Your task to perform on an android device: open app "Roku - Official Remote Control" (install if not already installed) and go to login screen Image 0: 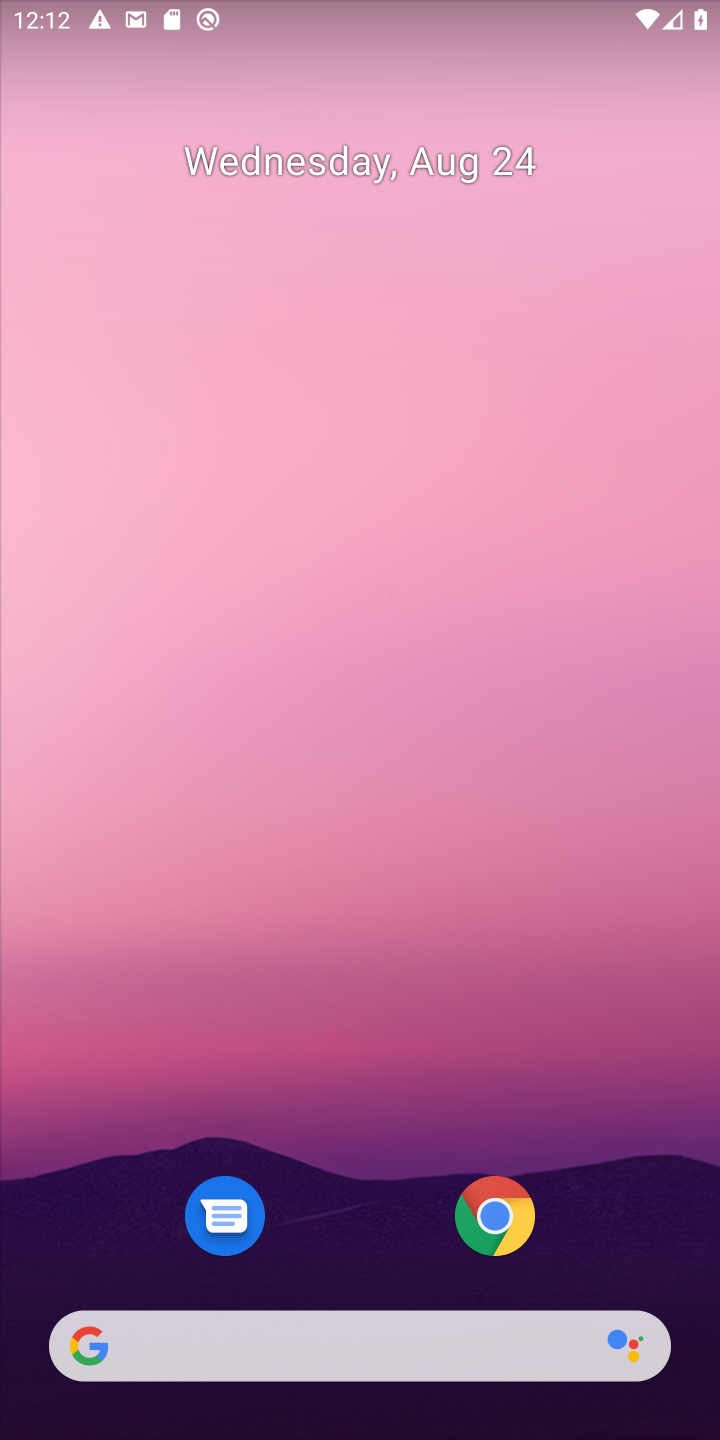
Step 0: drag from (260, 1342) to (546, 144)
Your task to perform on an android device: open app "Roku - Official Remote Control" (install if not already installed) and go to login screen Image 1: 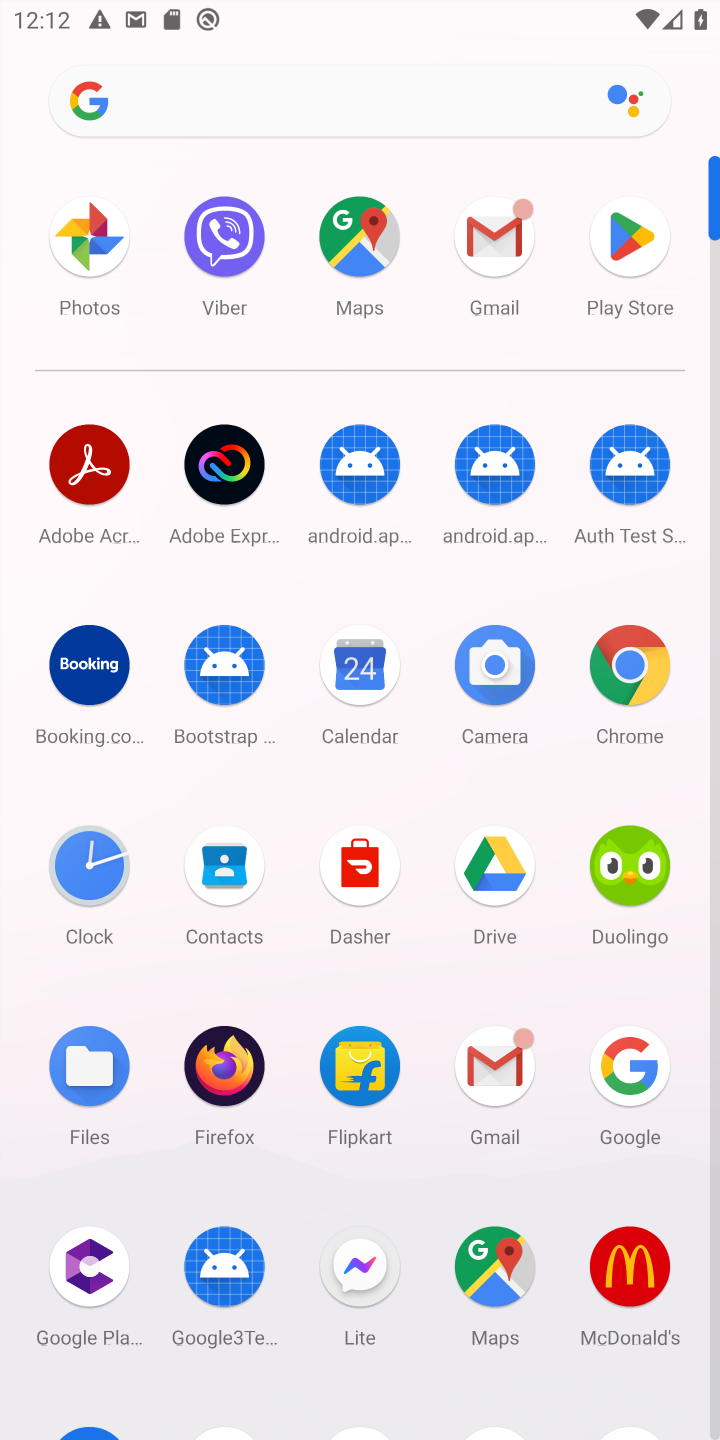
Step 1: click (626, 236)
Your task to perform on an android device: open app "Roku - Official Remote Control" (install if not already installed) and go to login screen Image 2: 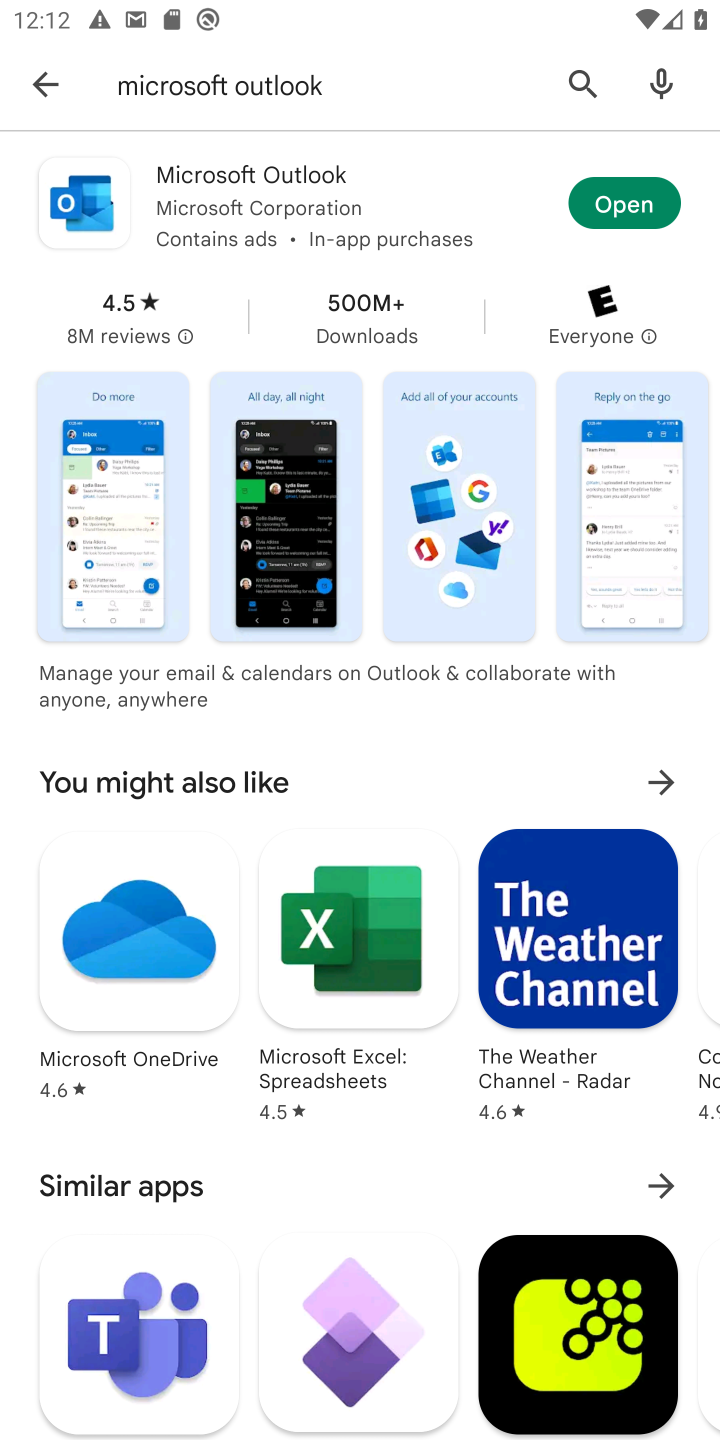
Step 2: press back button
Your task to perform on an android device: open app "Roku - Official Remote Control" (install if not already installed) and go to login screen Image 3: 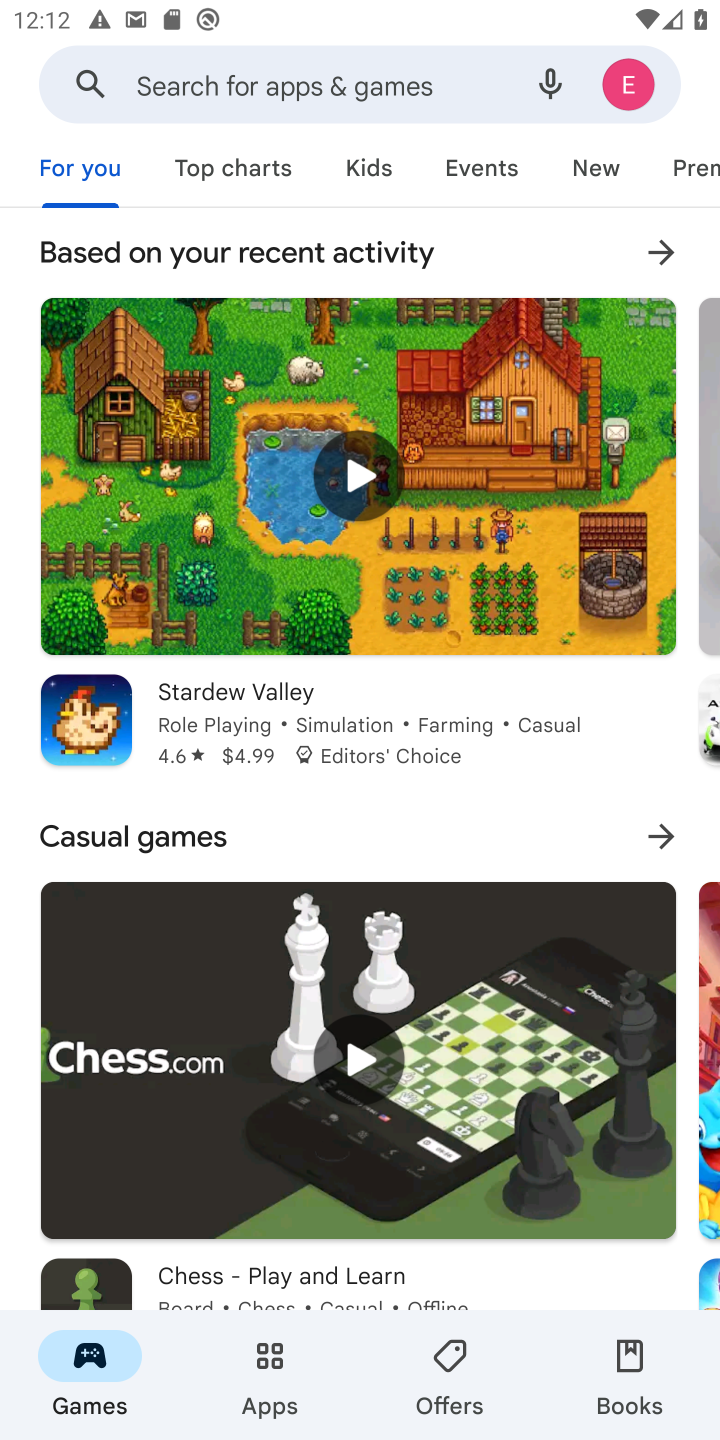
Step 3: click (245, 65)
Your task to perform on an android device: open app "Roku - Official Remote Control" (install if not already installed) and go to login screen Image 4: 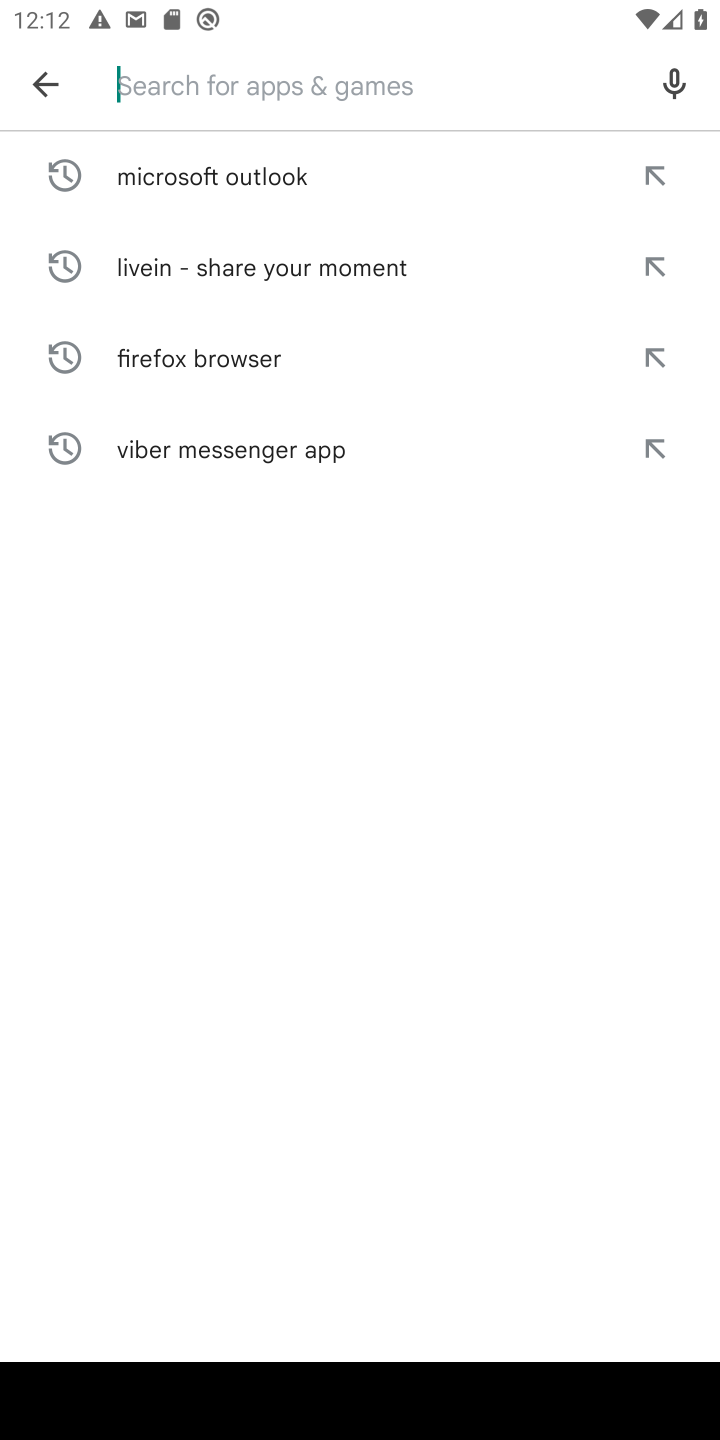
Step 4: click (211, 90)
Your task to perform on an android device: open app "Roku - Official Remote Control" (install if not already installed) and go to login screen Image 5: 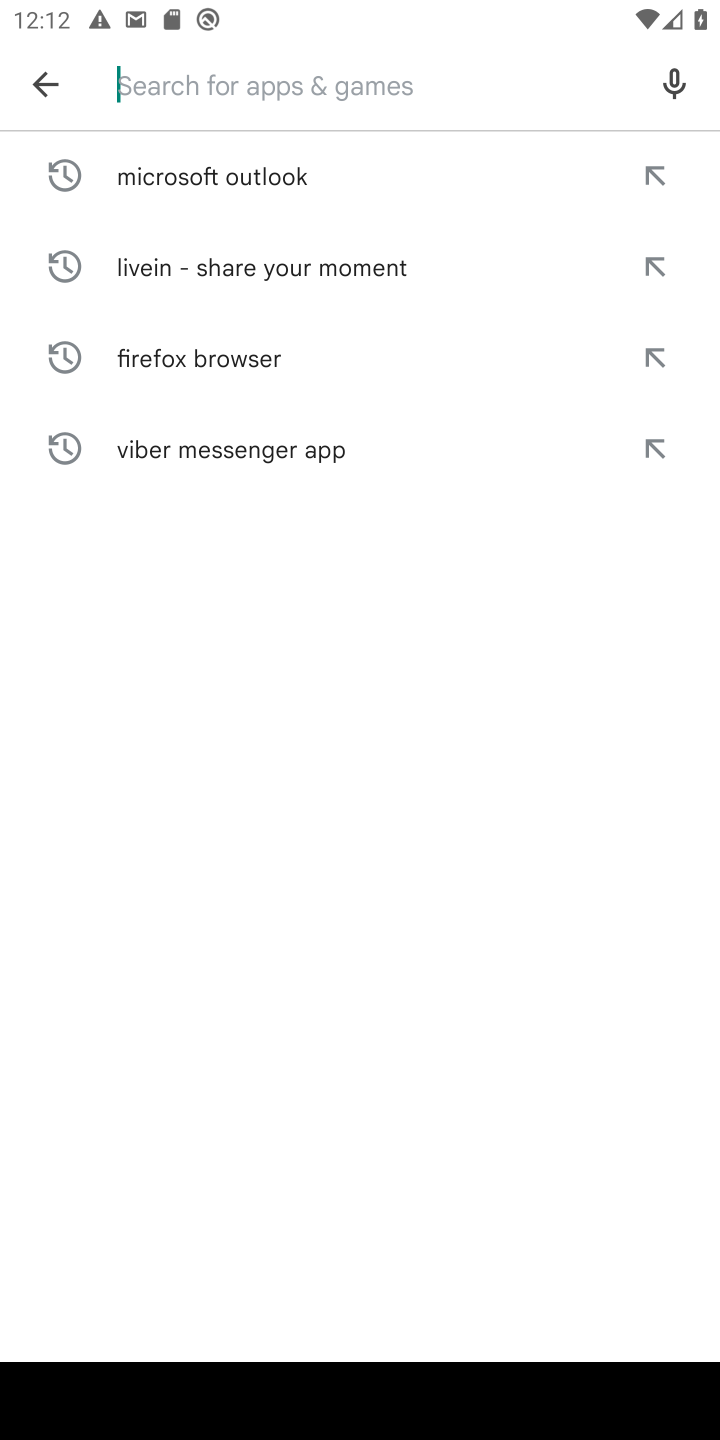
Step 5: type "Roku - Official Remote Control"
Your task to perform on an android device: open app "Roku - Official Remote Control" (install if not already installed) and go to login screen Image 6: 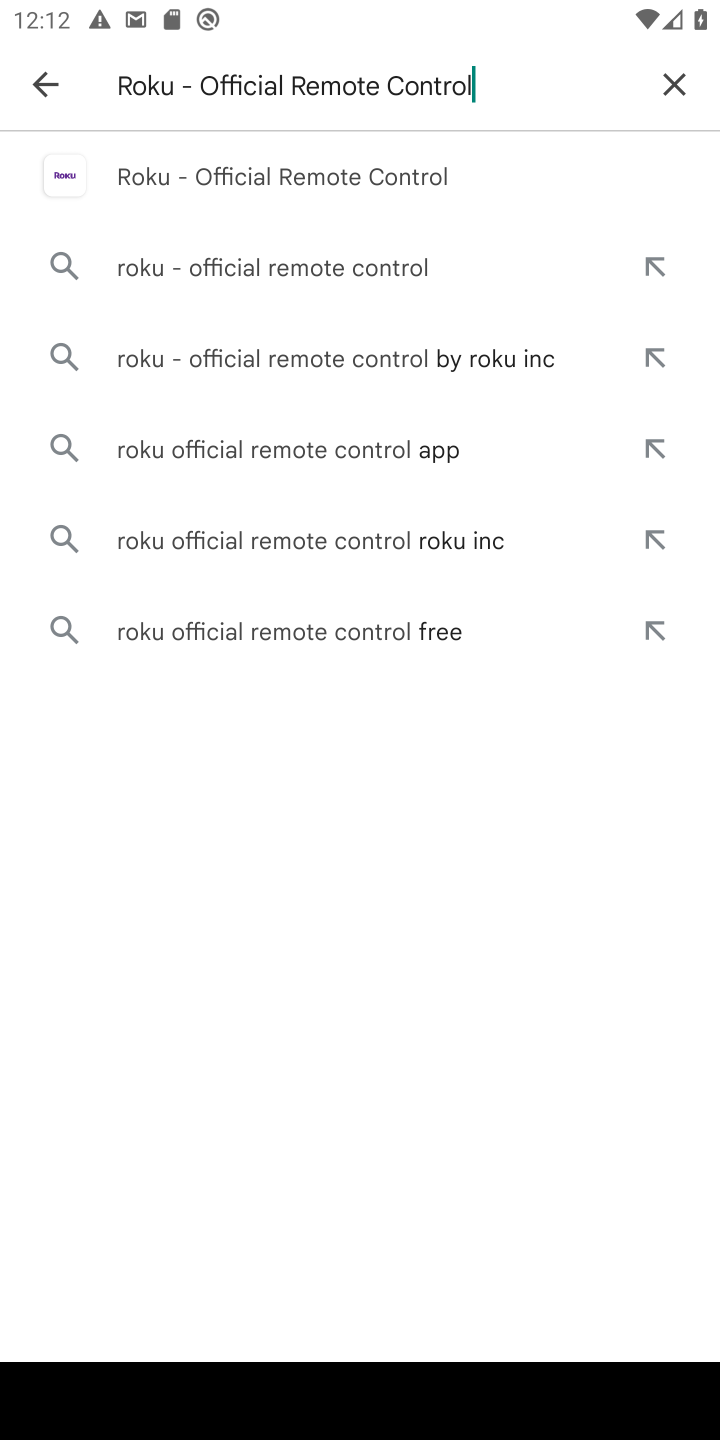
Step 6: click (186, 175)
Your task to perform on an android device: open app "Roku - Official Remote Control" (install if not already installed) and go to login screen Image 7: 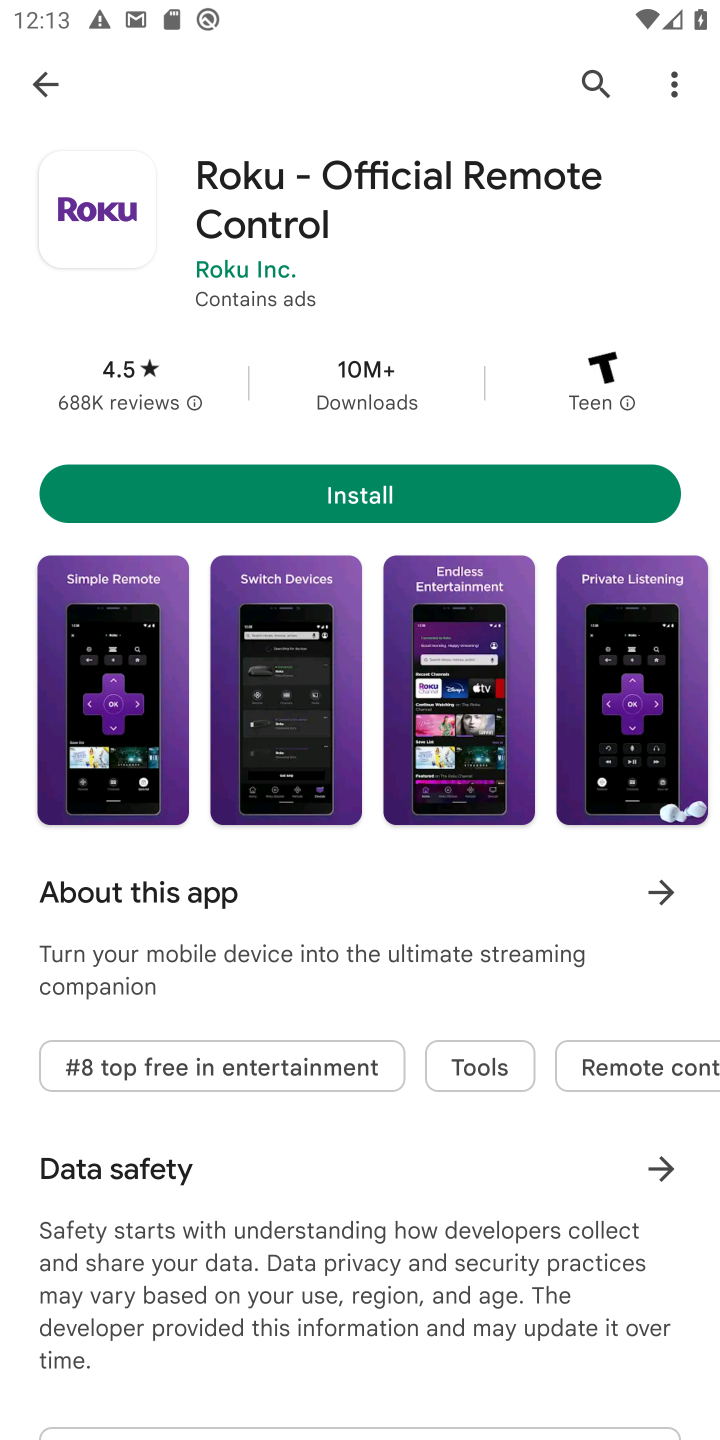
Step 7: click (391, 507)
Your task to perform on an android device: open app "Roku - Official Remote Control" (install if not already installed) and go to login screen Image 8: 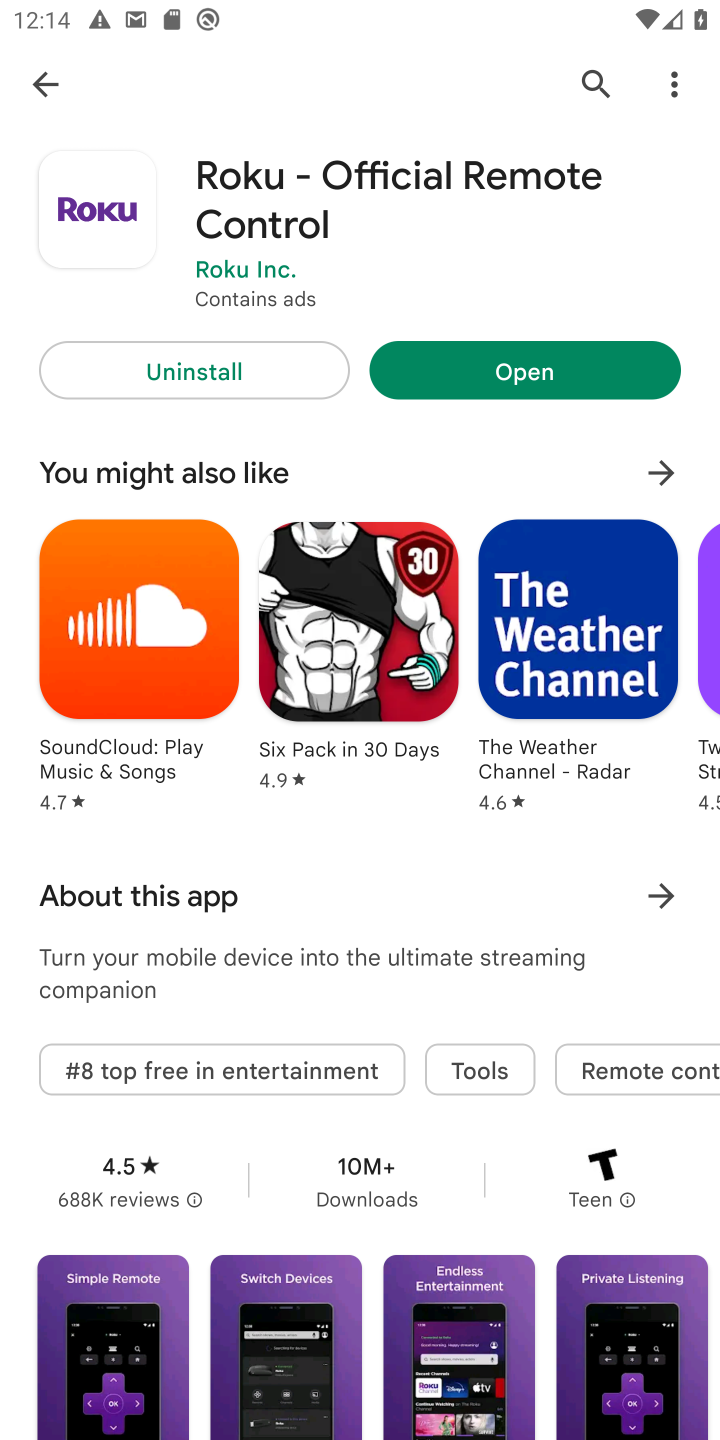
Step 8: click (527, 368)
Your task to perform on an android device: open app "Roku - Official Remote Control" (install if not already installed) and go to login screen Image 9: 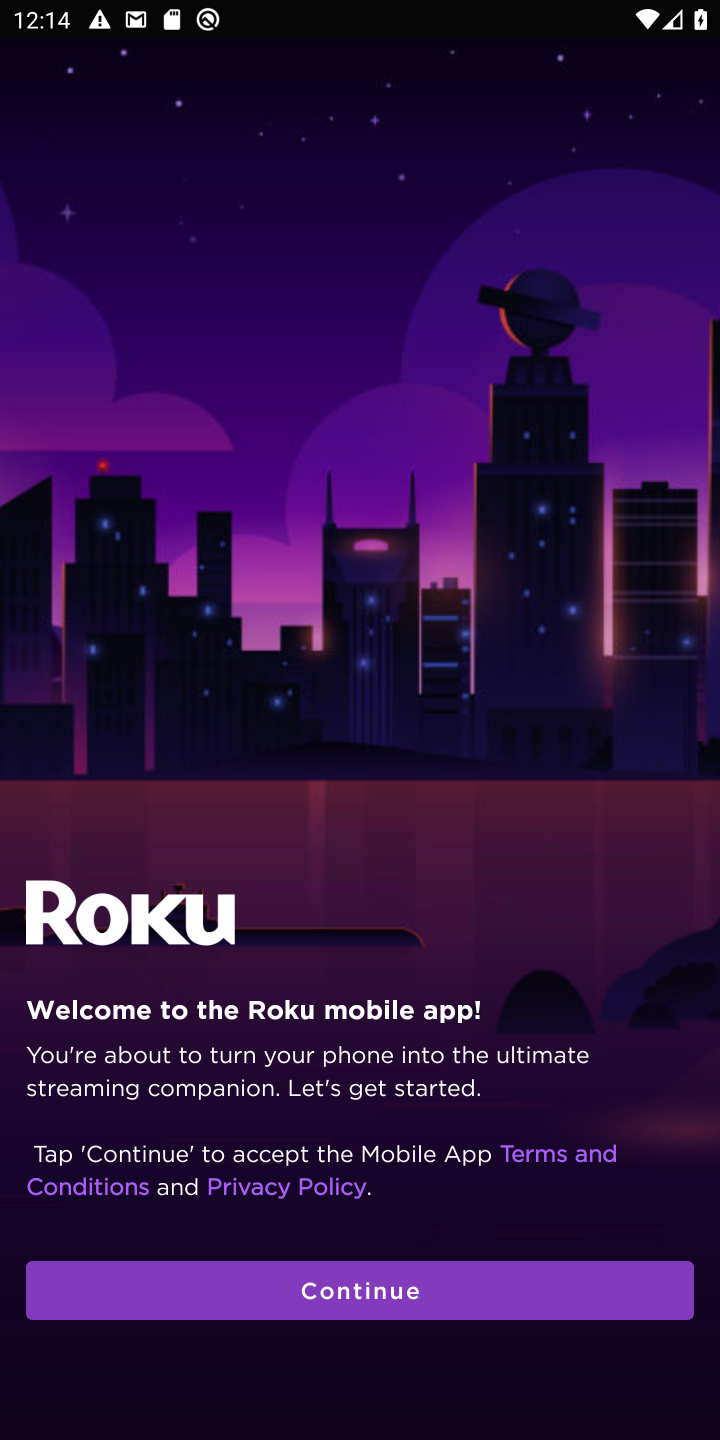
Step 9: click (377, 1301)
Your task to perform on an android device: open app "Roku - Official Remote Control" (install if not already installed) and go to login screen Image 10: 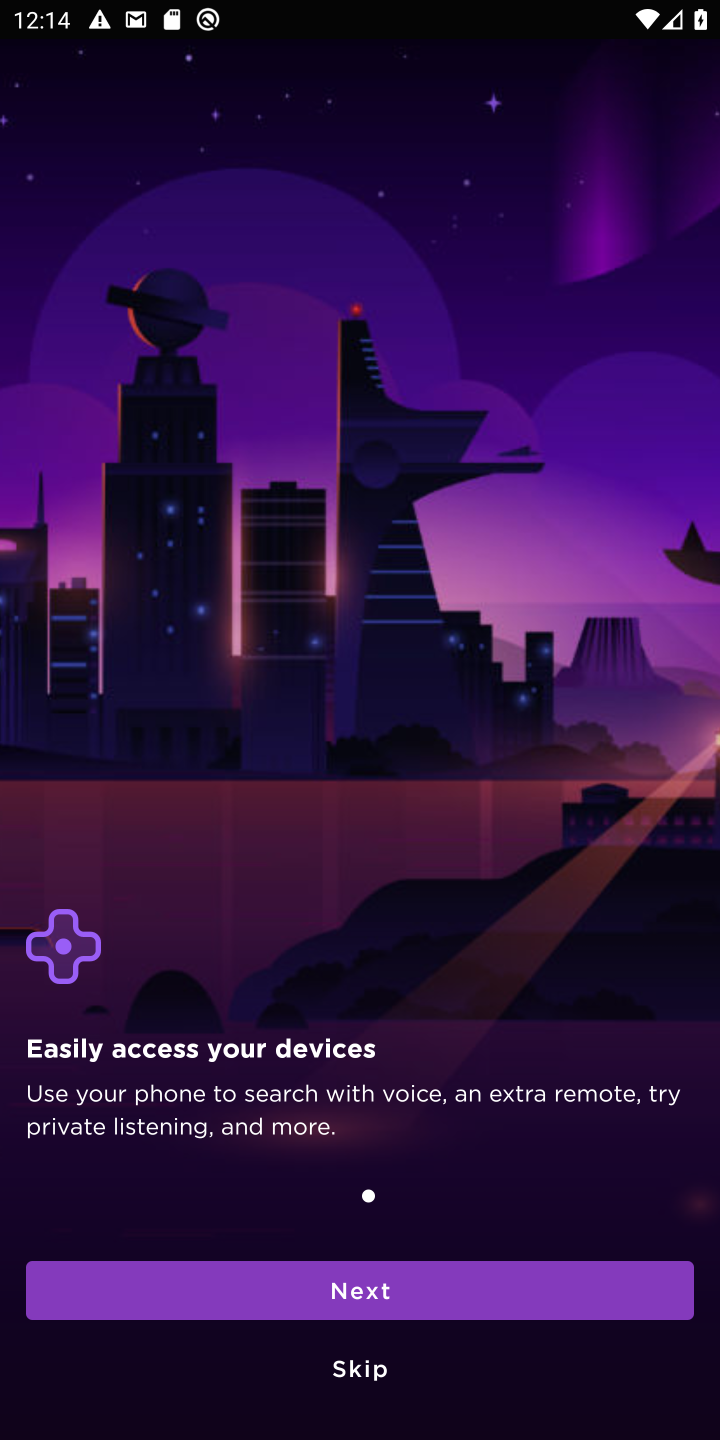
Step 10: click (395, 1300)
Your task to perform on an android device: open app "Roku - Official Remote Control" (install if not already installed) and go to login screen Image 11: 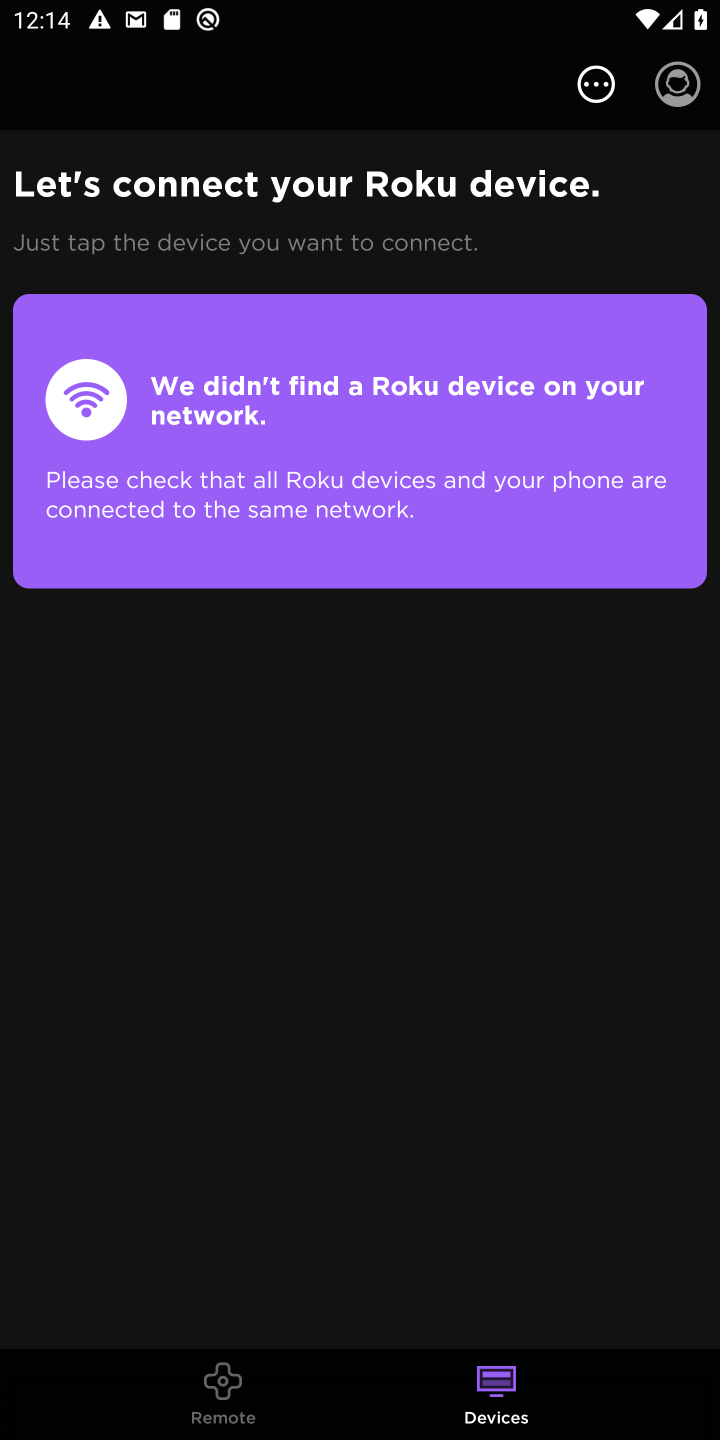
Step 11: click (676, 95)
Your task to perform on an android device: open app "Roku - Official Remote Control" (install if not already installed) and go to login screen Image 12: 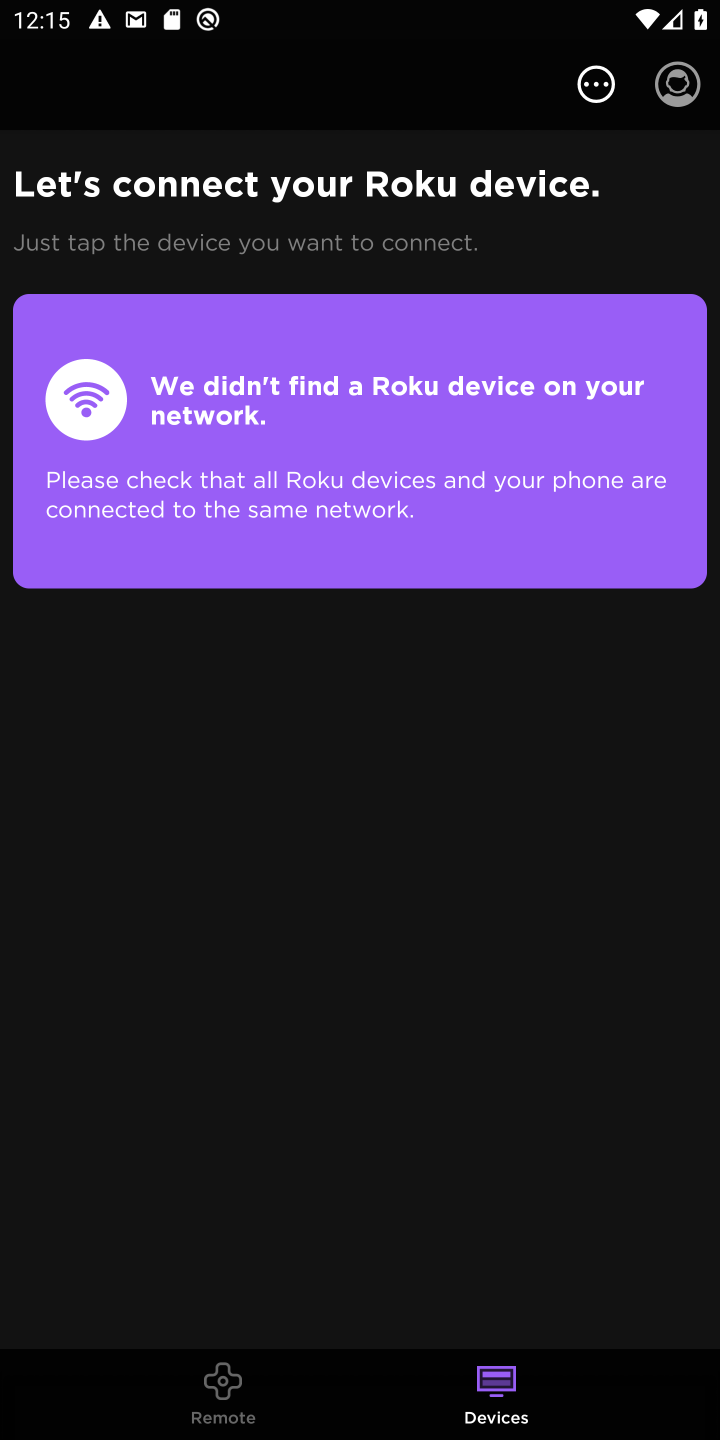
Step 12: click (677, 76)
Your task to perform on an android device: open app "Roku - Official Remote Control" (install if not already installed) and go to login screen Image 13: 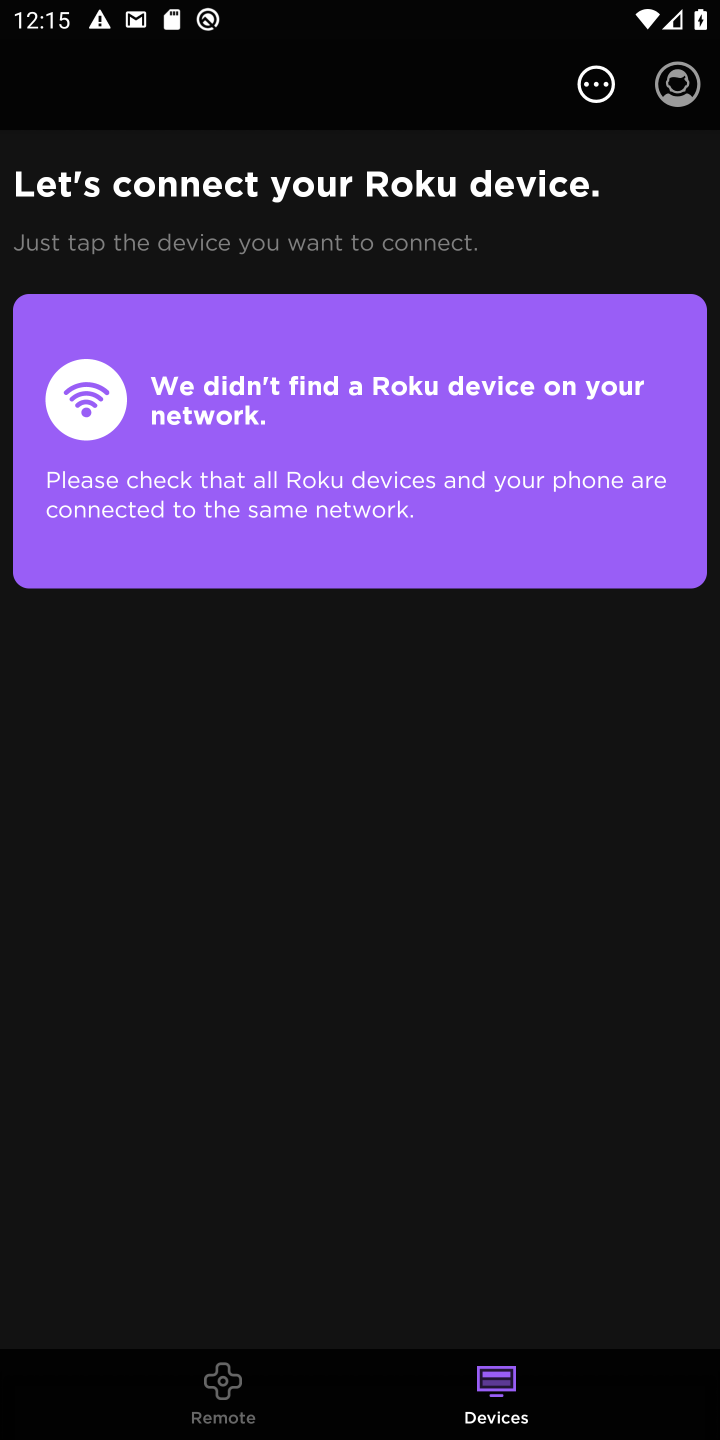
Step 13: click (677, 76)
Your task to perform on an android device: open app "Roku - Official Remote Control" (install if not already installed) and go to login screen Image 14: 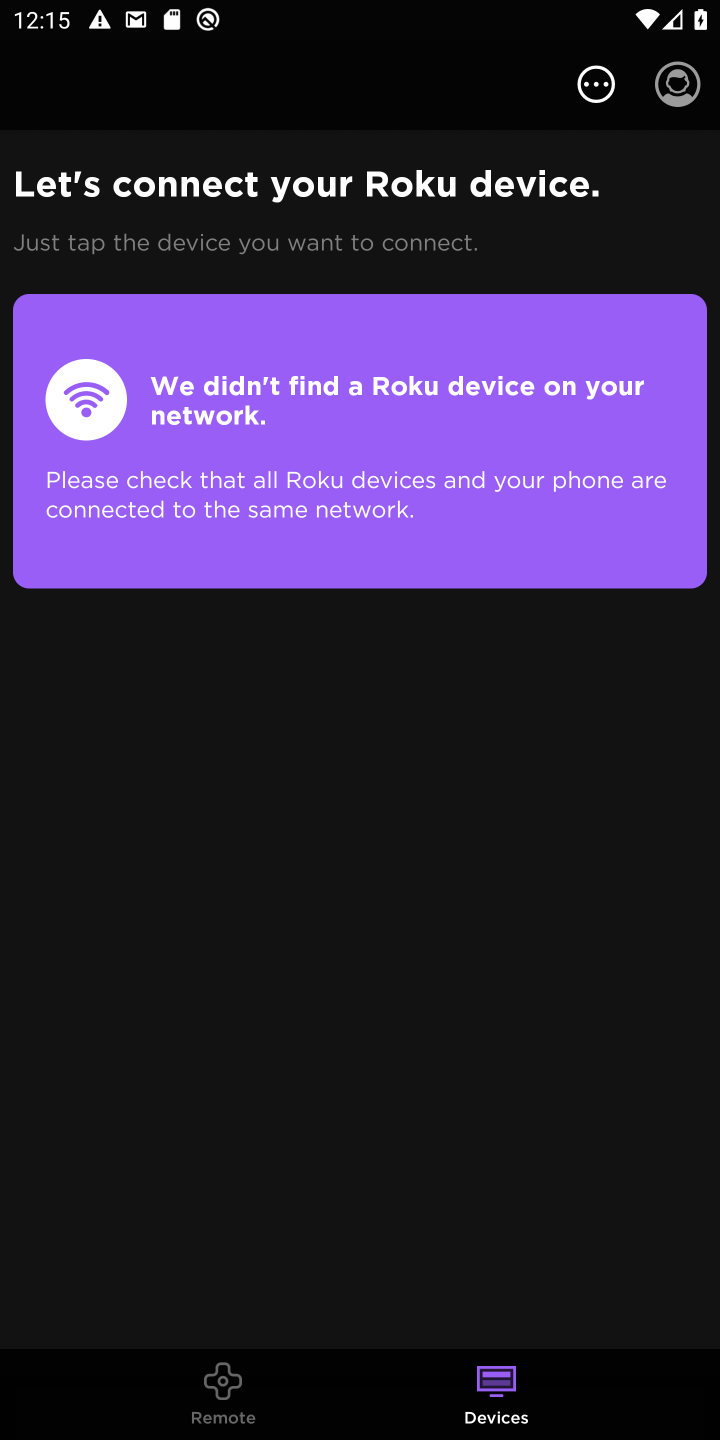
Step 14: click (664, 85)
Your task to perform on an android device: open app "Roku - Official Remote Control" (install if not already installed) and go to login screen Image 15: 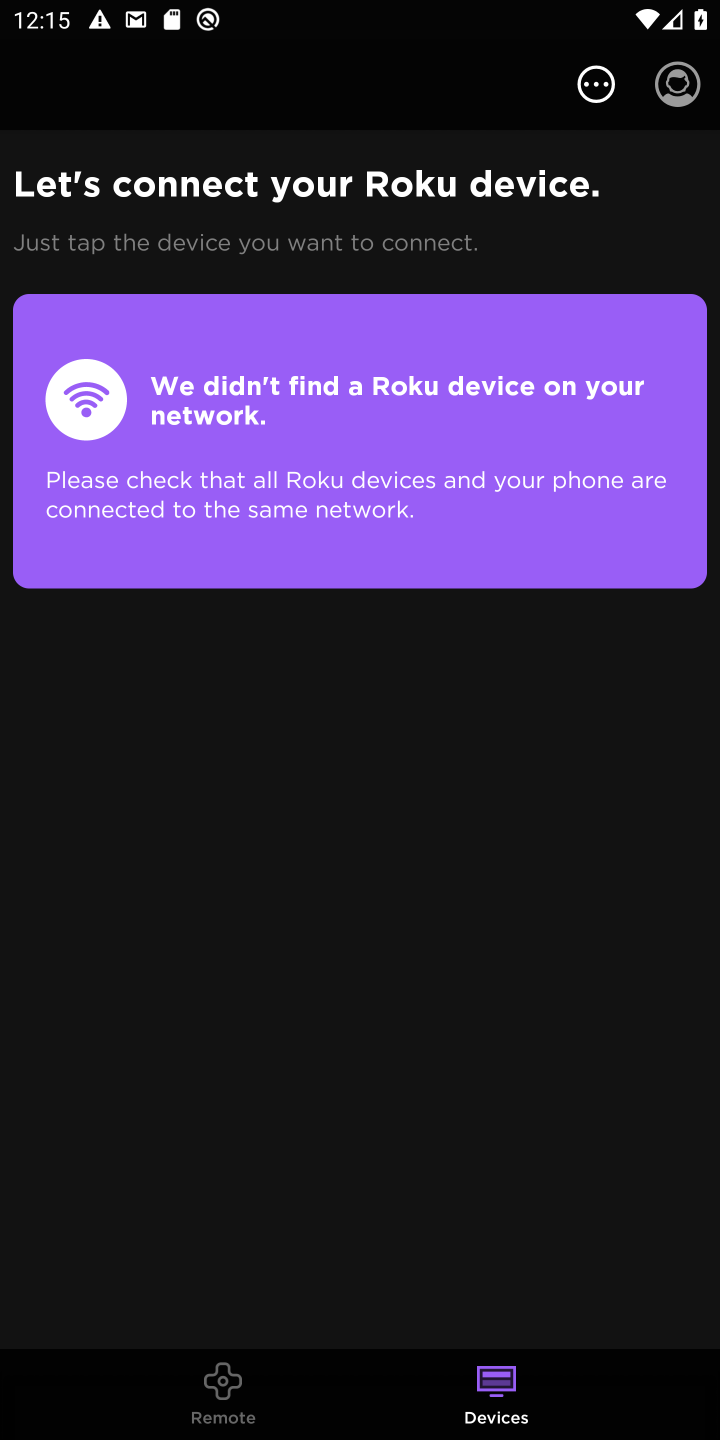
Step 15: click (681, 85)
Your task to perform on an android device: open app "Roku - Official Remote Control" (install if not already installed) and go to login screen Image 16: 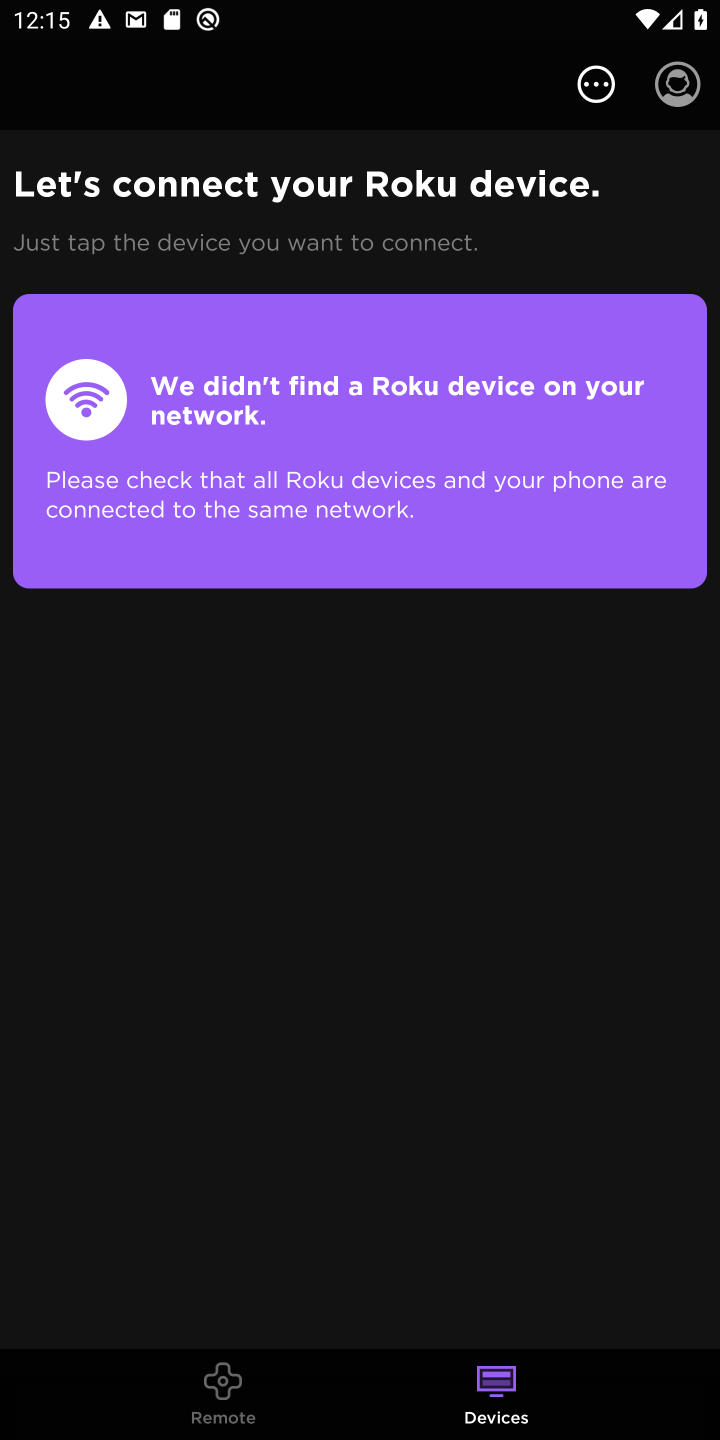
Step 16: click (681, 85)
Your task to perform on an android device: open app "Roku - Official Remote Control" (install if not already installed) and go to login screen Image 17: 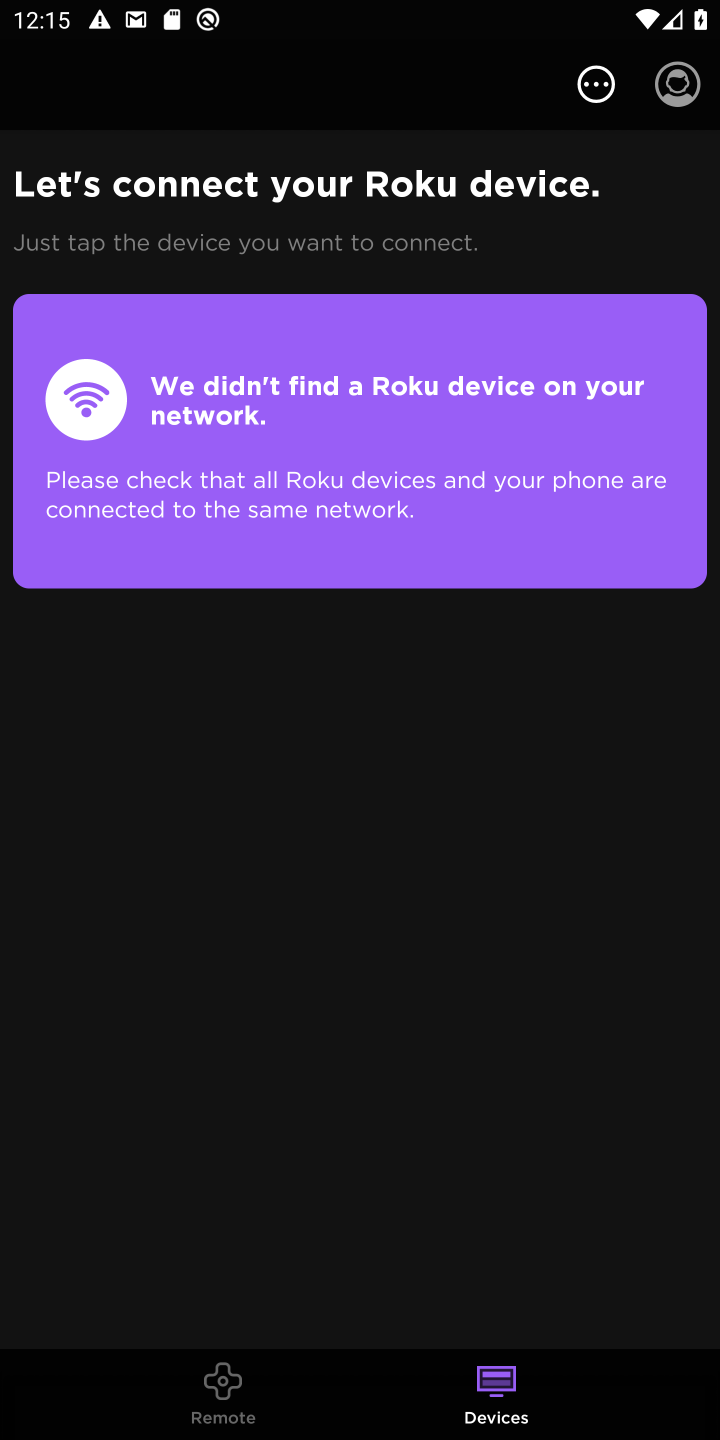
Step 17: click (187, 1393)
Your task to perform on an android device: open app "Roku - Official Remote Control" (install if not already installed) and go to login screen Image 18: 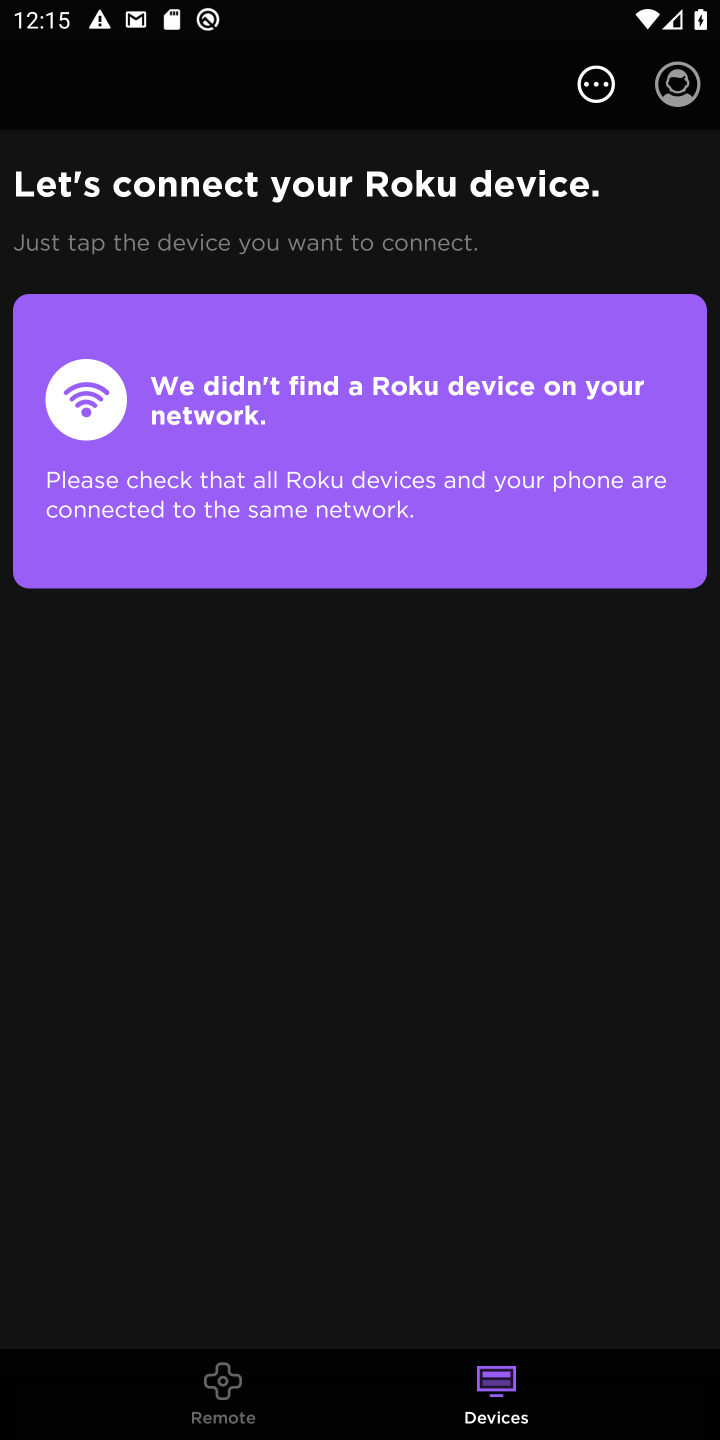
Step 18: click (510, 1389)
Your task to perform on an android device: open app "Roku - Official Remote Control" (install if not already installed) and go to login screen Image 19: 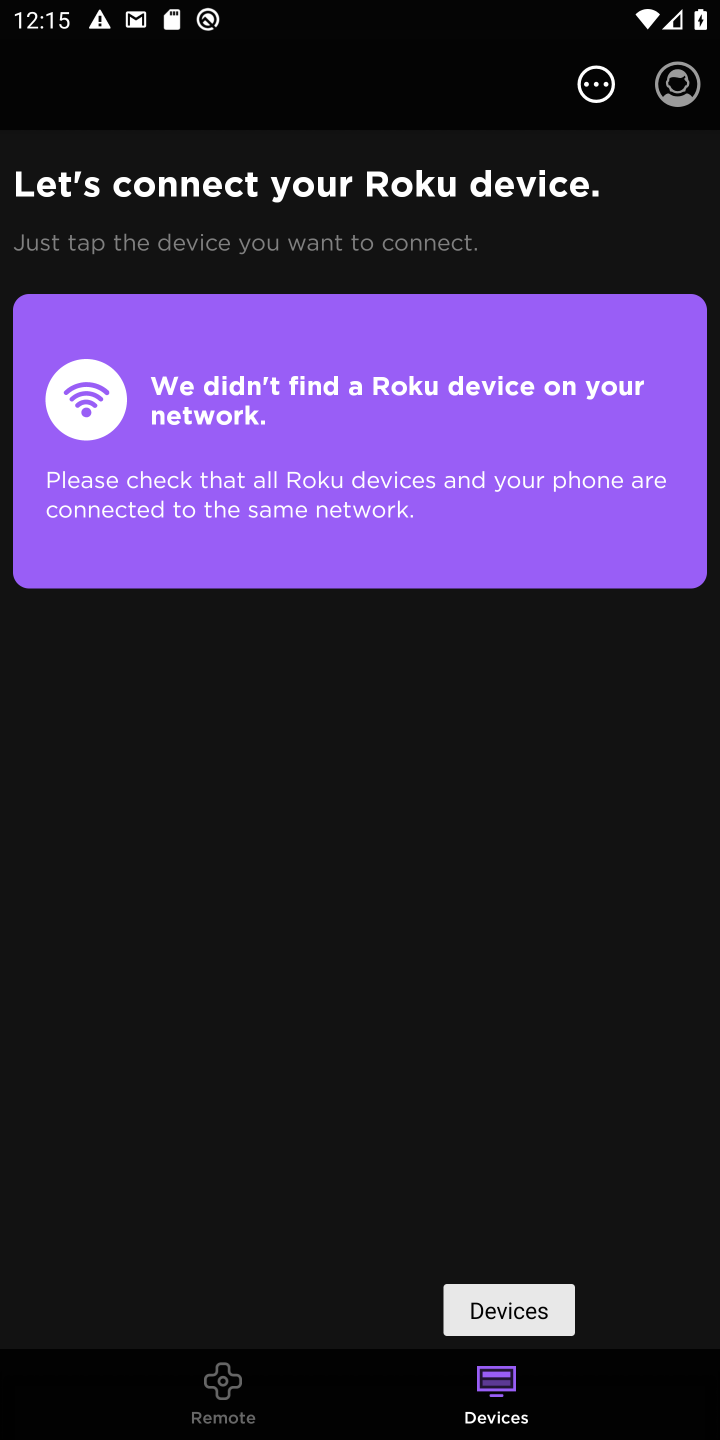
Step 19: click (230, 195)
Your task to perform on an android device: open app "Roku - Official Remote Control" (install if not already installed) and go to login screen Image 20: 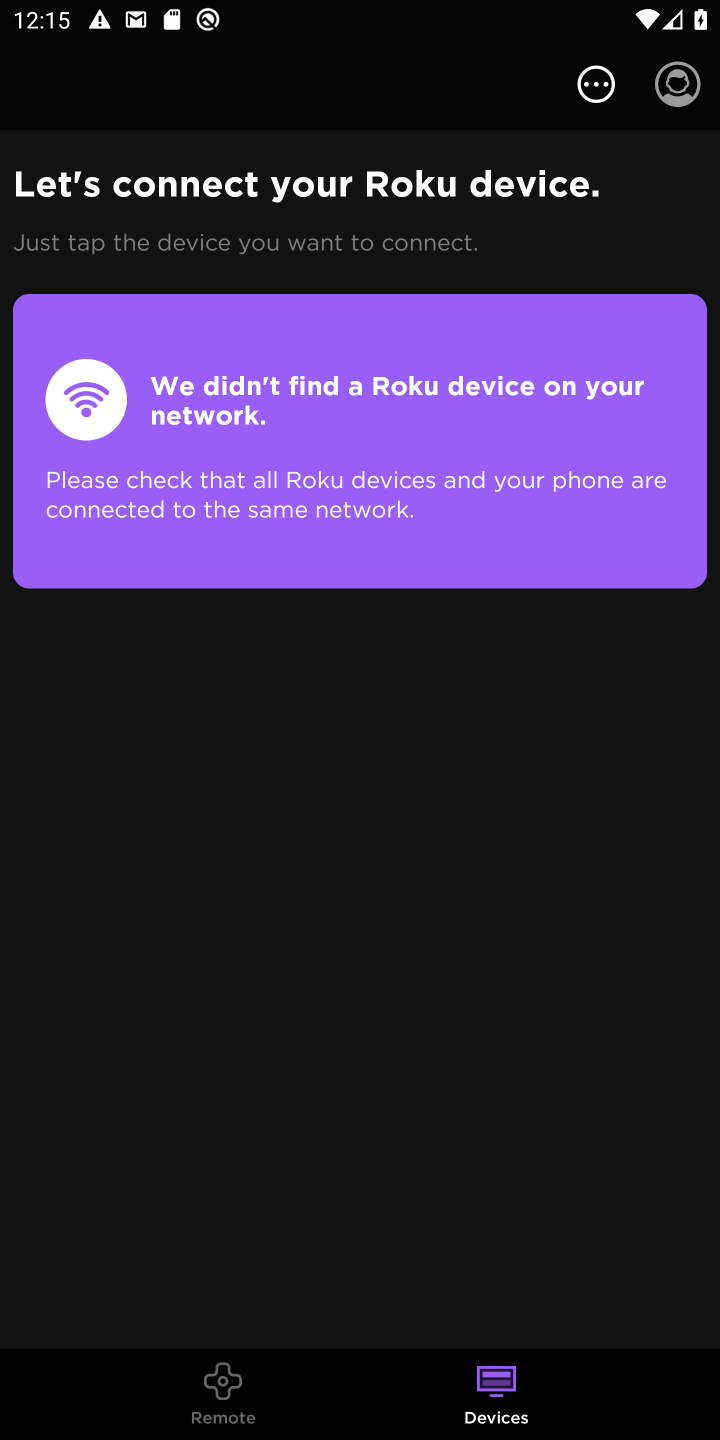
Step 20: task complete